Your task to perform on an android device: Open Wikipedia Image 0: 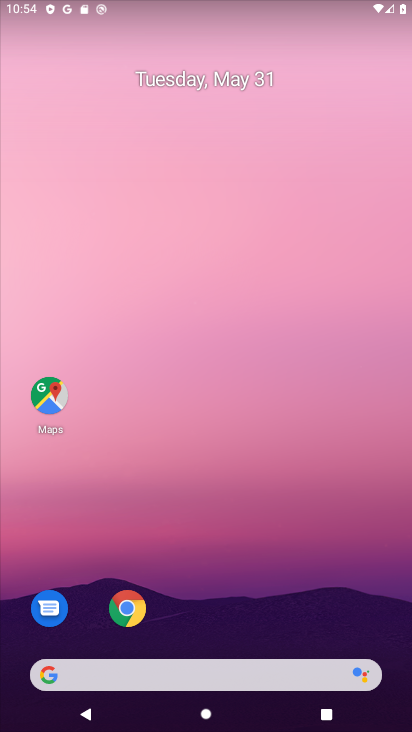
Step 0: click (127, 615)
Your task to perform on an android device: Open Wikipedia Image 1: 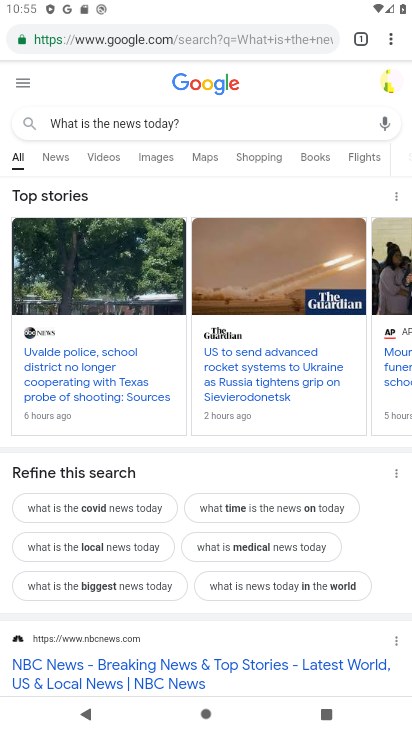
Step 1: click (261, 44)
Your task to perform on an android device: Open Wikipedia Image 2: 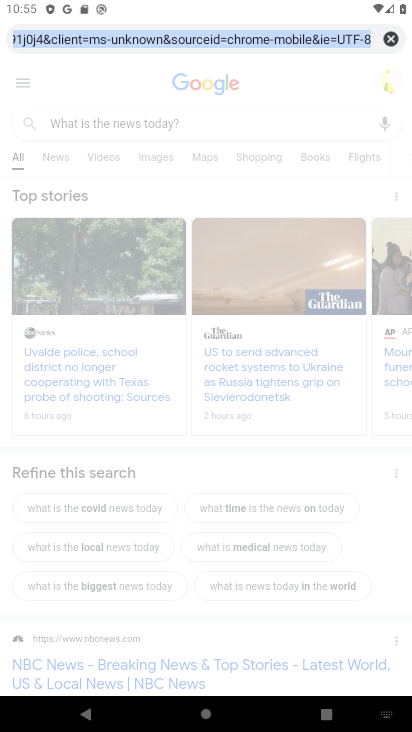
Step 2: type "Wikipedia"
Your task to perform on an android device: Open Wikipedia Image 3: 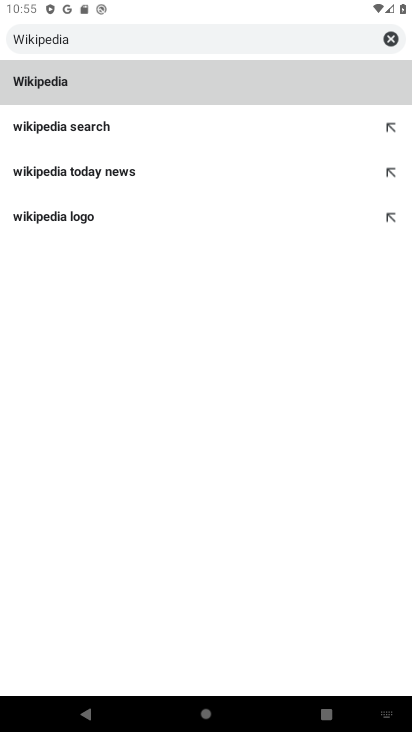
Step 3: click (160, 63)
Your task to perform on an android device: Open Wikipedia Image 4: 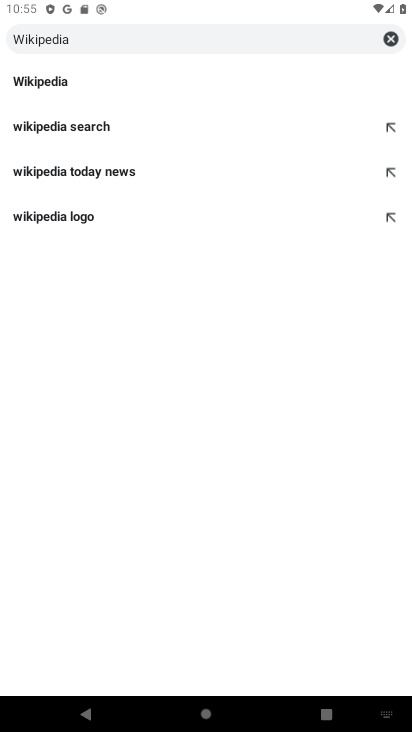
Step 4: click (128, 71)
Your task to perform on an android device: Open Wikipedia Image 5: 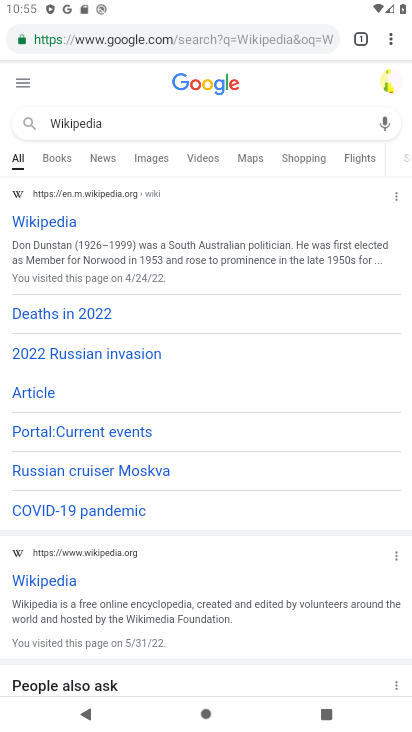
Step 5: click (20, 216)
Your task to perform on an android device: Open Wikipedia Image 6: 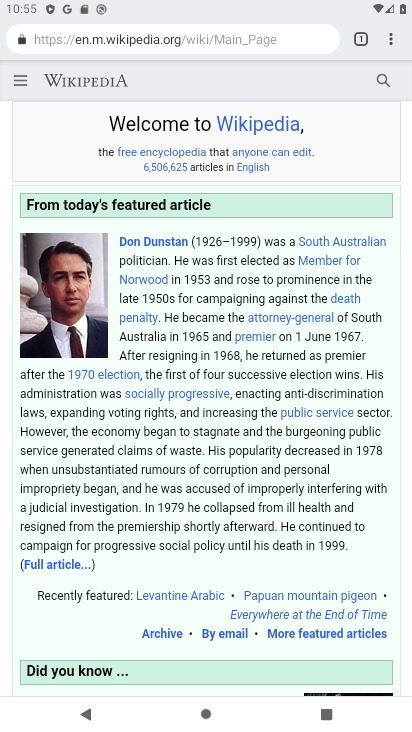
Step 6: task complete